Your task to perform on an android device: delete the emails in spam in the gmail app Image 0: 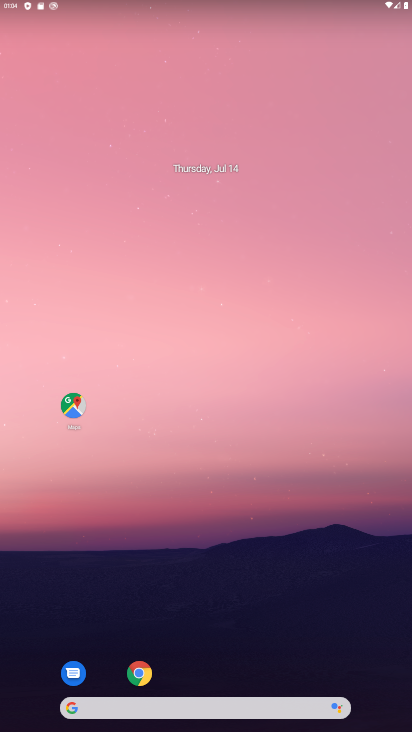
Step 0: drag from (206, 639) to (260, 90)
Your task to perform on an android device: delete the emails in spam in the gmail app Image 1: 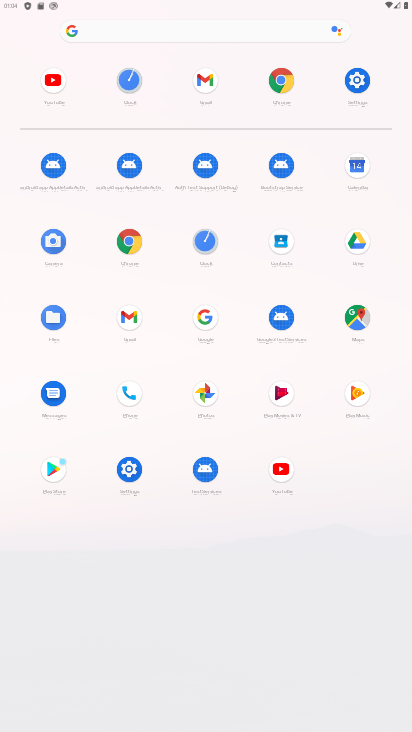
Step 1: click (188, 90)
Your task to perform on an android device: delete the emails in spam in the gmail app Image 2: 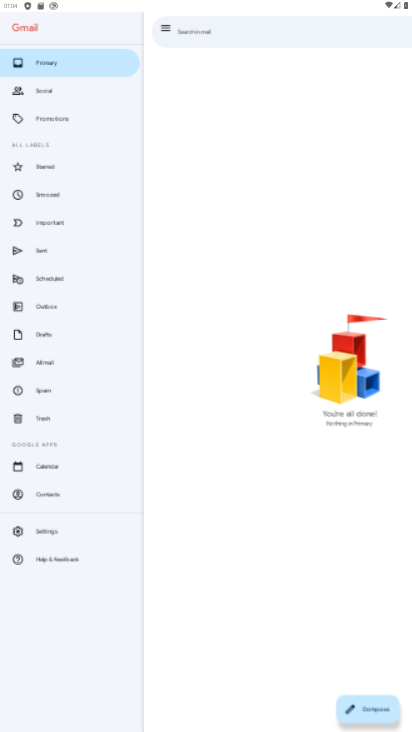
Step 2: task complete